Your task to perform on an android device: Go to notification settings Image 0: 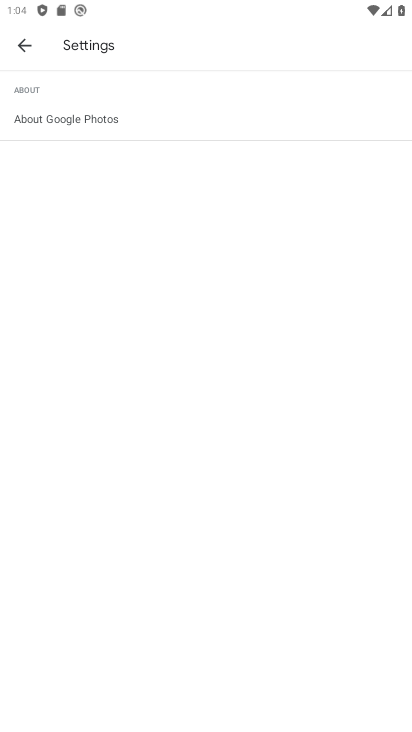
Step 0: press home button
Your task to perform on an android device: Go to notification settings Image 1: 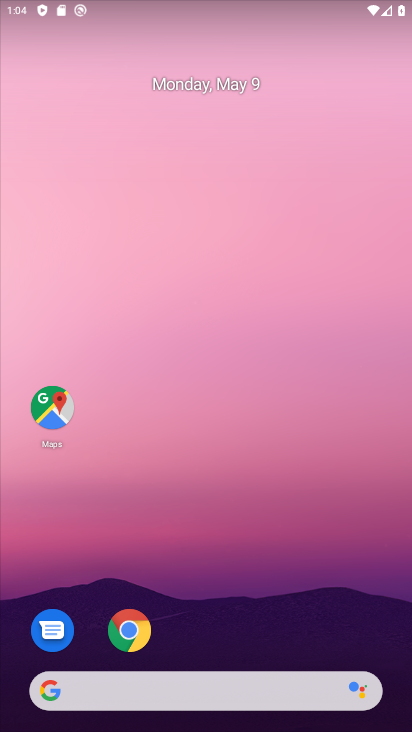
Step 1: drag from (243, 725) to (234, 375)
Your task to perform on an android device: Go to notification settings Image 2: 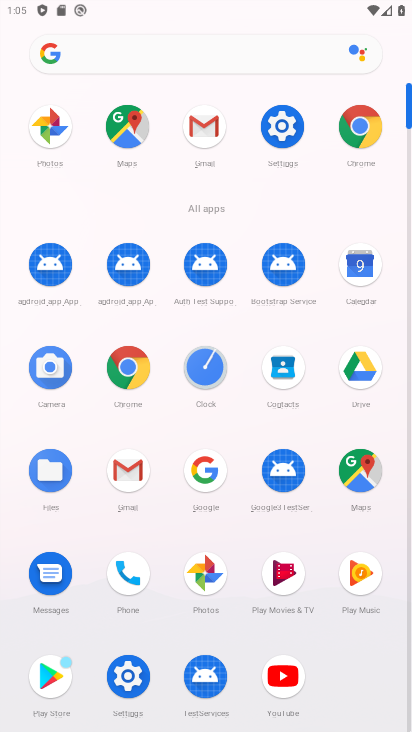
Step 2: click (131, 661)
Your task to perform on an android device: Go to notification settings Image 3: 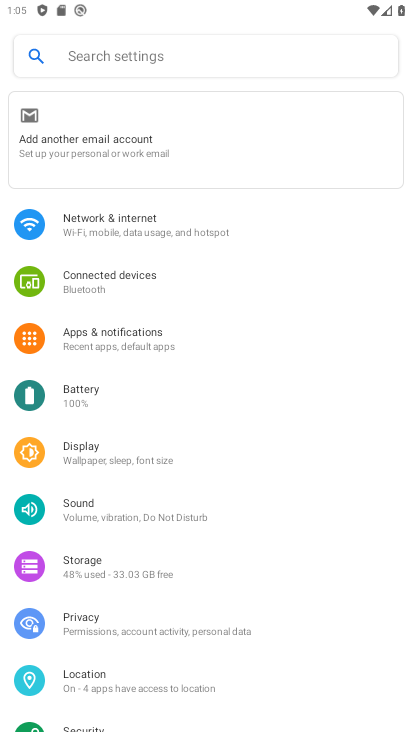
Step 3: click (163, 63)
Your task to perform on an android device: Go to notification settings Image 4: 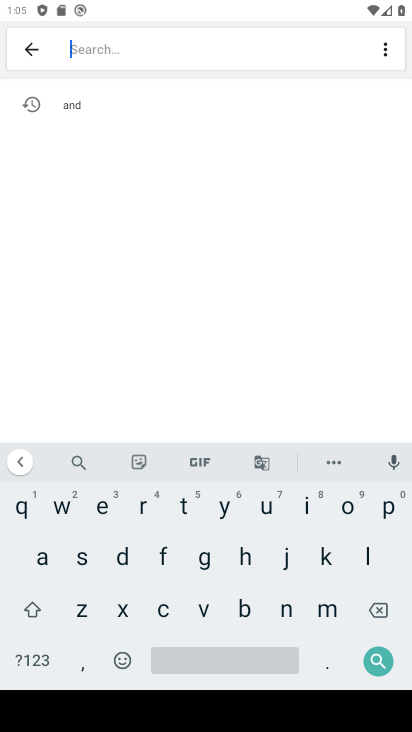
Step 4: click (283, 605)
Your task to perform on an android device: Go to notification settings Image 5: 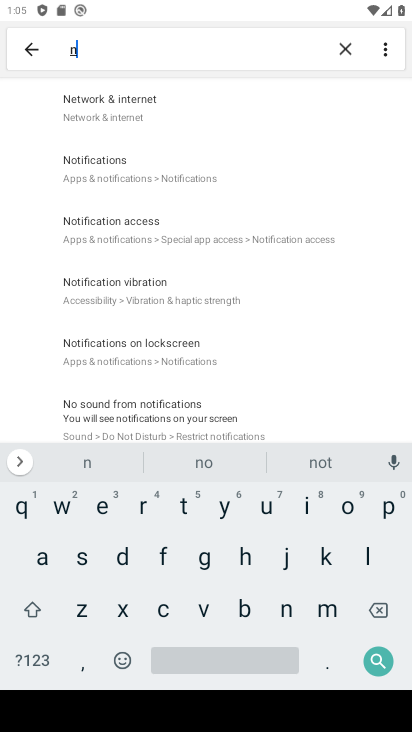
Step 5: click (342, 510)
Your task to perform on an android device: Go to notification settings Image 6: 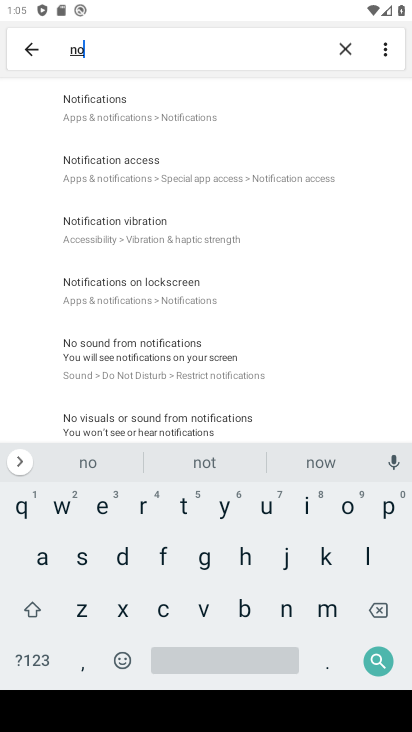
Step 6: click (125, 103)
Your task to perform on an android device: Go to notification settings Image 7: 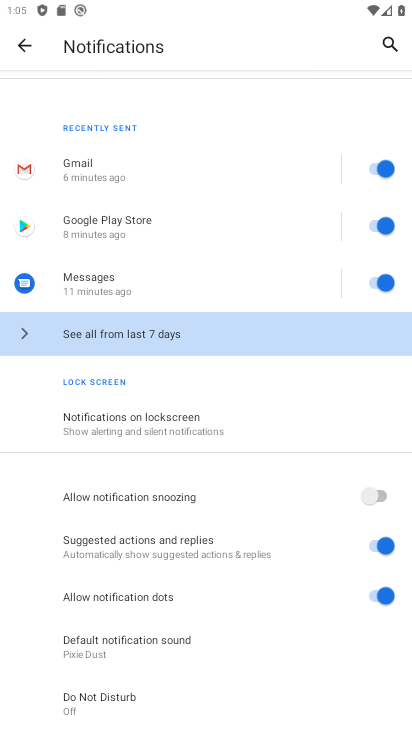
Step 7: click (92, 419)
Your task to perform on an android device: Go to notification settings Image 8: 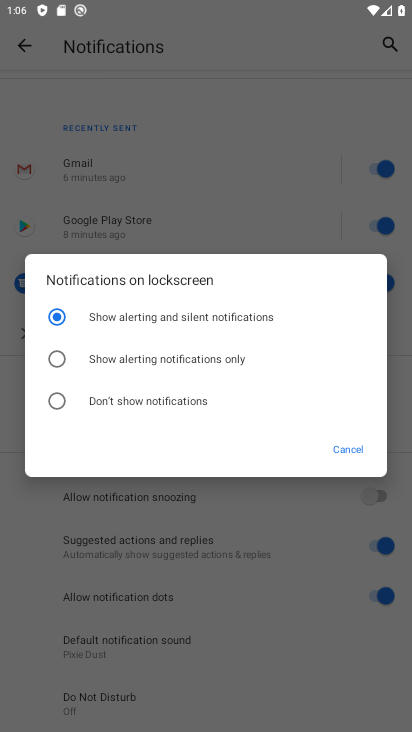
Step 8: task complete